Your task to perform on an android device: Go to Wikipedia Image 0: 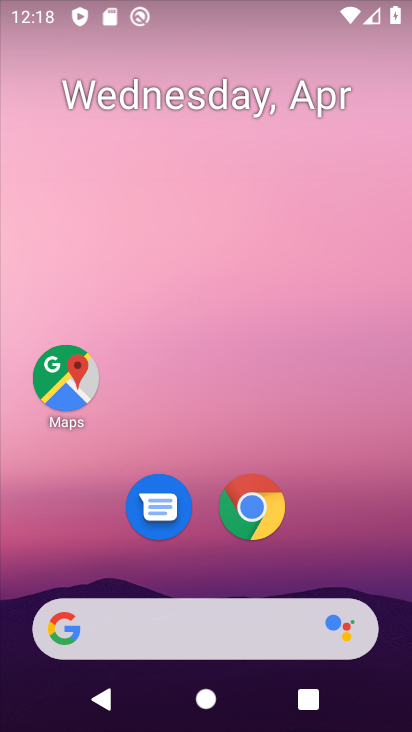
Step 0: click (164, 629)
Your task to perform on an android device: Go to Wikipedia Image 1: 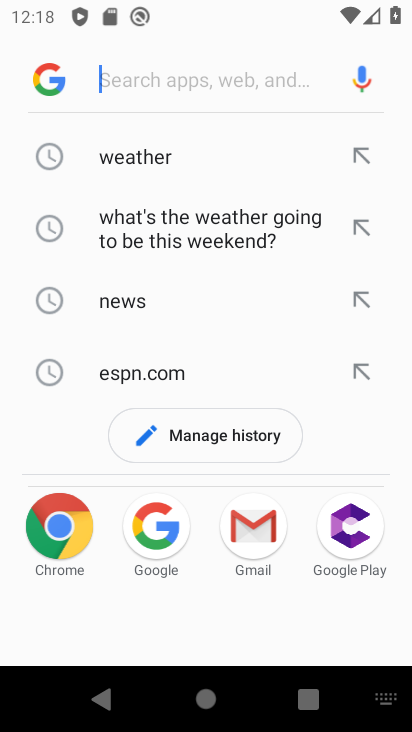
Step 1: type "Wikipedia"
Your task to perform on an android device: Go to Wikipedia Image 2: 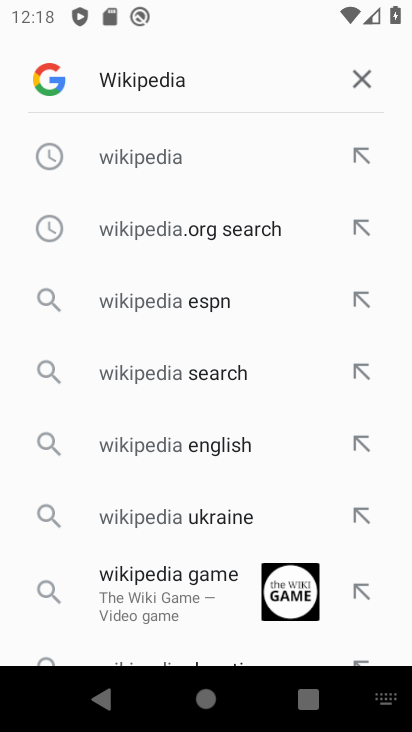
Step 2: click (200, 153)
Your task to perform on an android device: Go to Wikipedia Image 3: 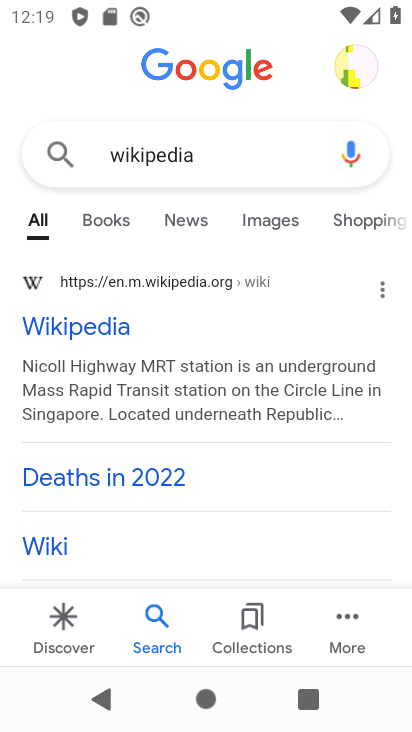
Step 3: click (72, 330)
Your task to perform on an android device: Go to Wikipedia Image 4: 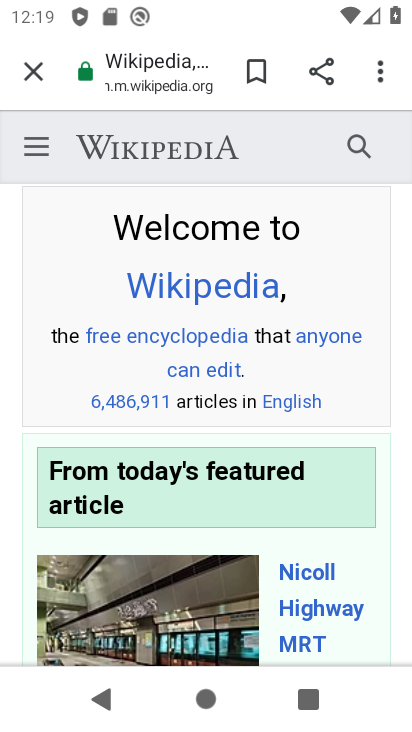
Step 4: task complete